Your task to perform on an android device: turn on the 12-hour format for clock Image 0: 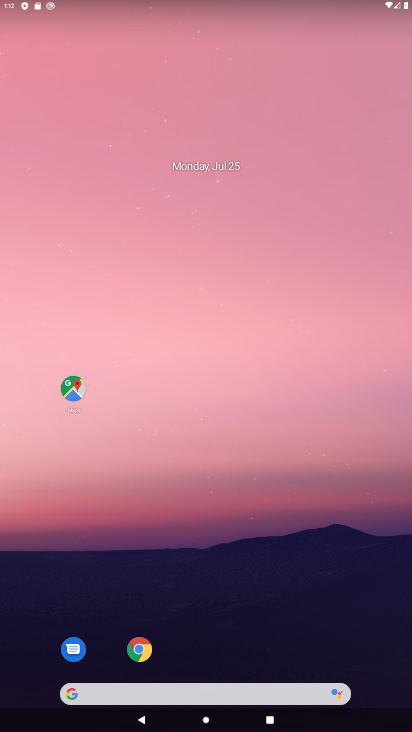
Step 0: drag from (291, 698) to (220, 206)
Your task to perform on an android device: turn on the 12-hour format for clock Image 1: 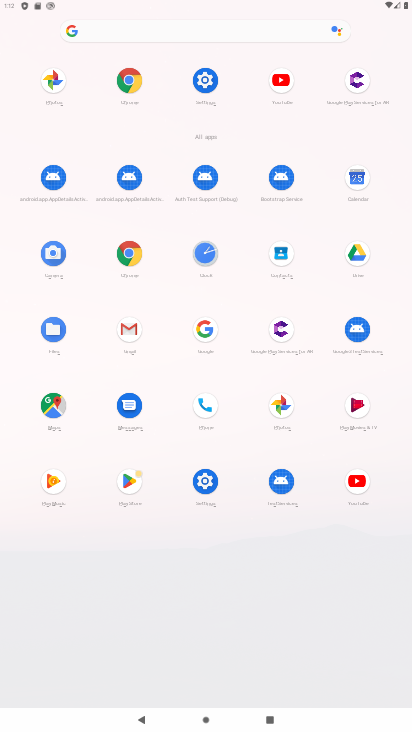
Step 1: click (210, 487)
Your task to perform on an android device: turn on the 12-hour format for clock Image 2: 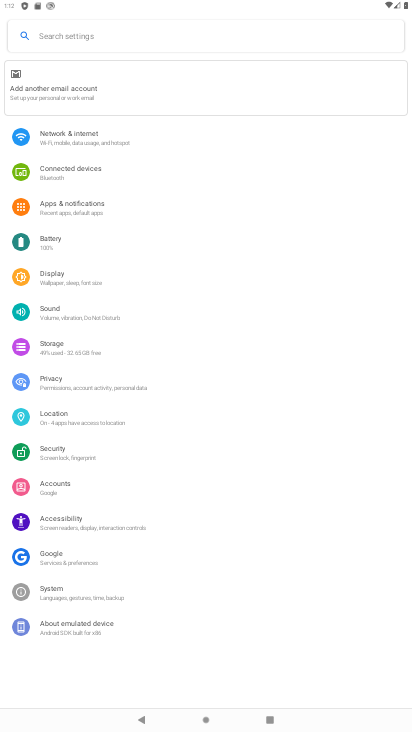
Step 2: press home button
Your task to perform on an android device: turn on the 12-hour format for clock Image 3: 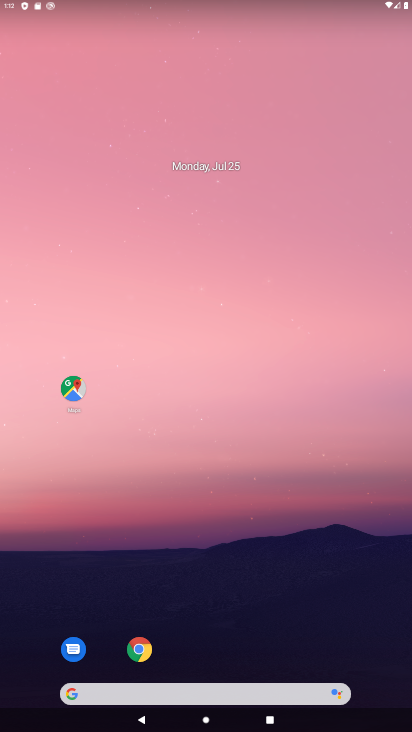
Step 3: drag from (269, 544) to (201, 232)
Your task to perform on an android device: turn on the 12-hour format for clock Image 4: 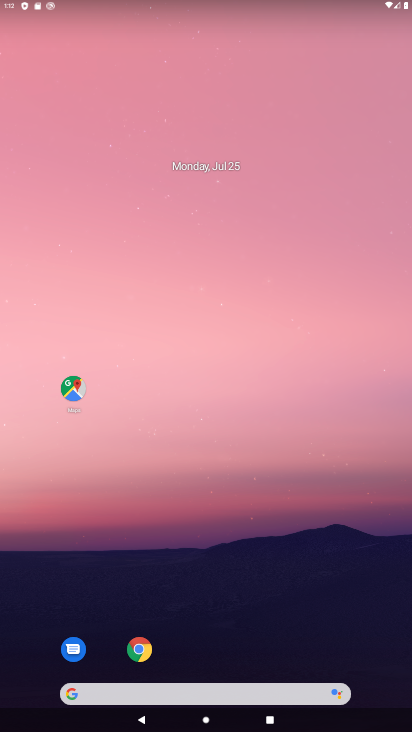
Step 4: drag from (243, 703) to (181, 98)
Your task to perform on an android device: turn on the 12-hour format for clock Image 5: 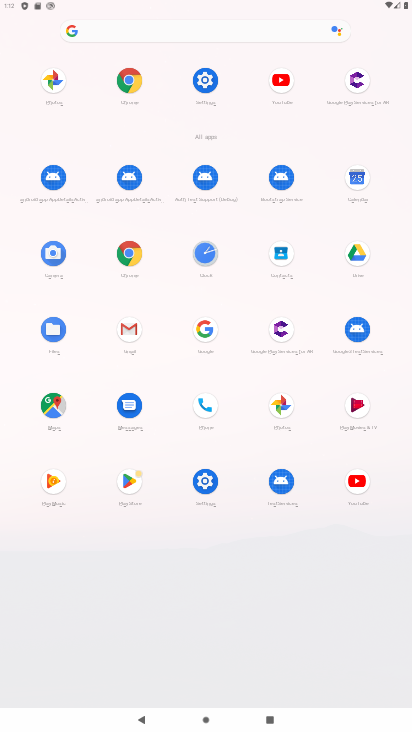
Step 5: click (194, 261)
Your task to perform on an android device: turn on the 12-hour format for clock Image 6: 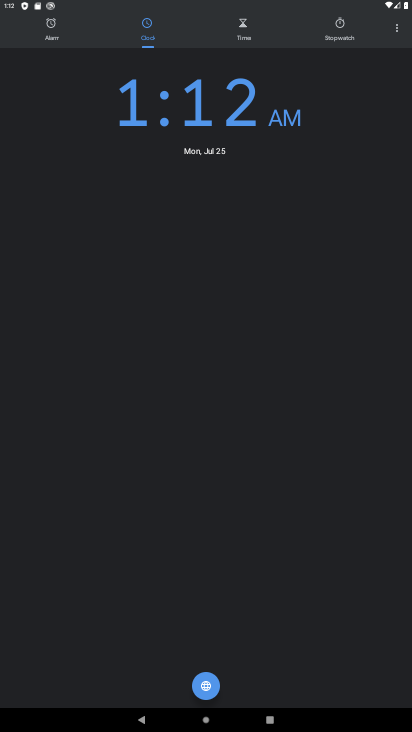
Step 6: click (396, 32)
Your task to perform on an android device: turn on the 12-hour format for clock Image 7: 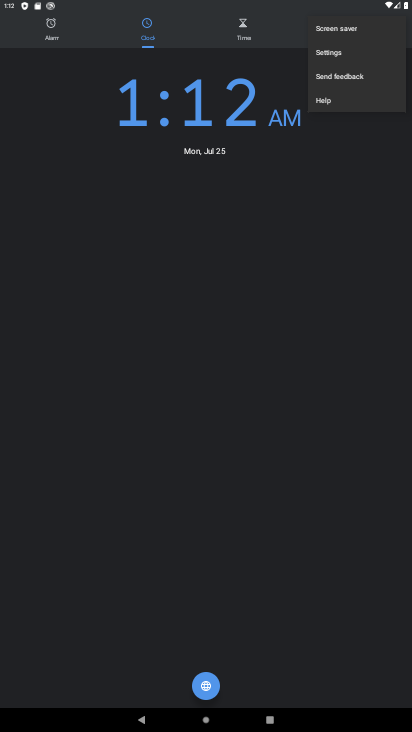
Step 7: click (333, 58)
Your task to perform on an android device: turn on the 12-hour format for clock Image 8: 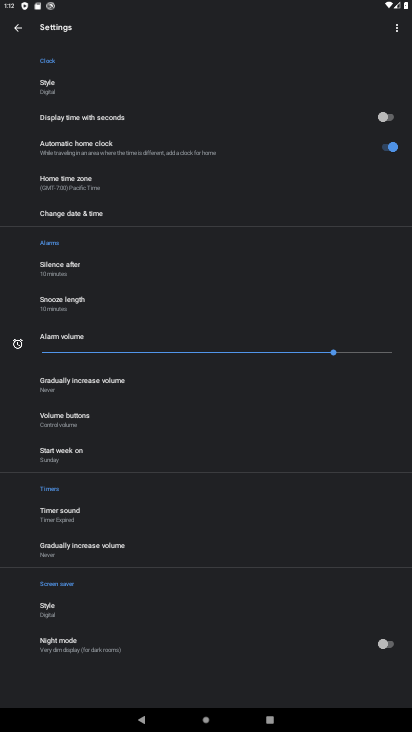
Step 8: click (74, 214)
Your task to perform on an android device: turn on the 12-hour format for clock Image 9: 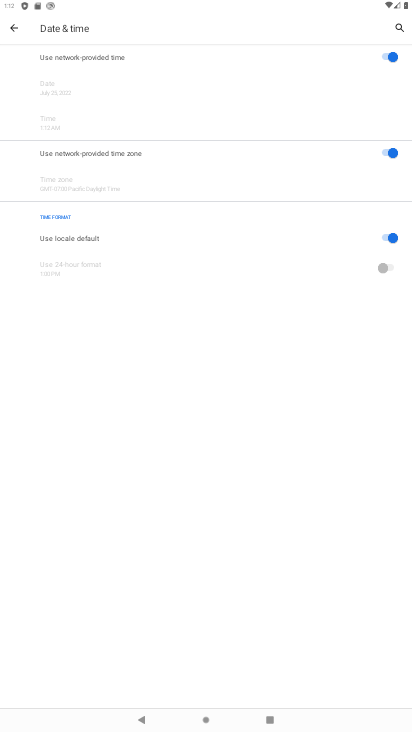
Step 9: click (260, 251)
Your task to perform on an android device: turn on the 12-hour format for clock Image 10: 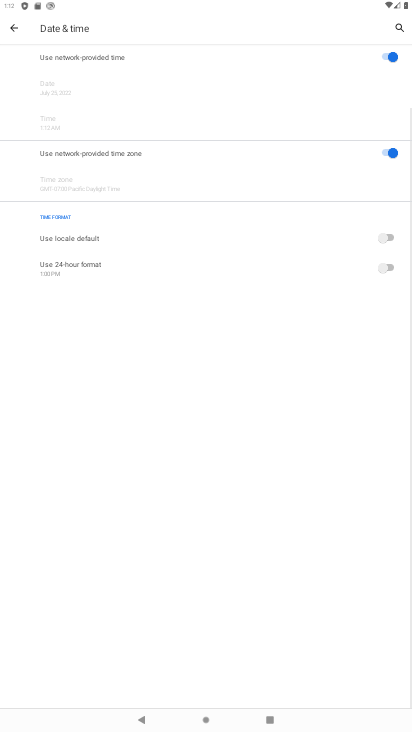
Step 10: click (364, 282)
Your task to perform on an android device: turn on the 12-hour format for clock Image 11: 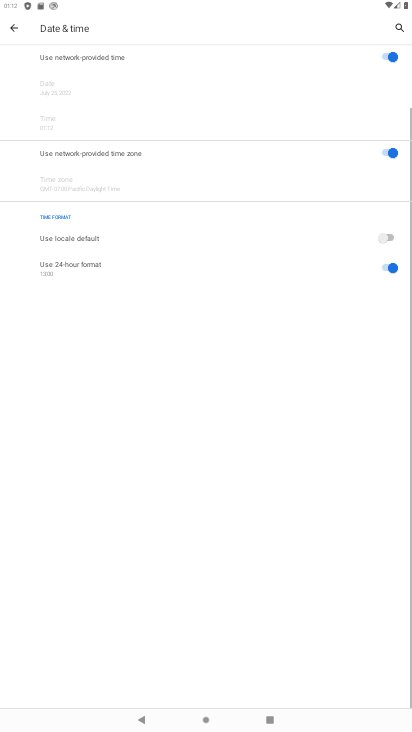
Step 11: click (364, 282)
Your task to perform on an android device: turn on the 12-hour format for clock Image 12: 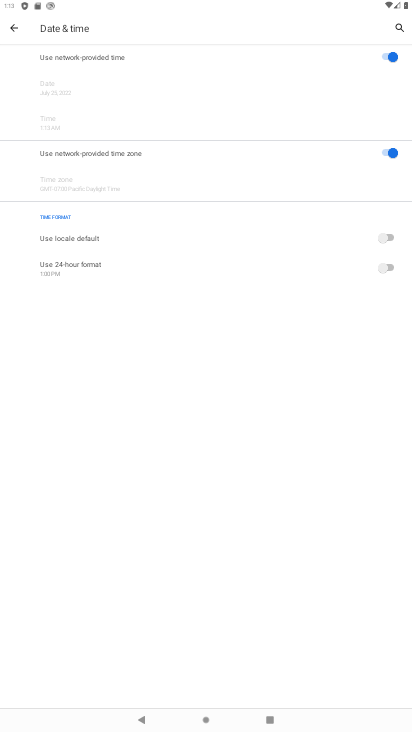
Step 12: task complete